Your task to perform on an android device: make emails show in primary in the gmail app Image 0: 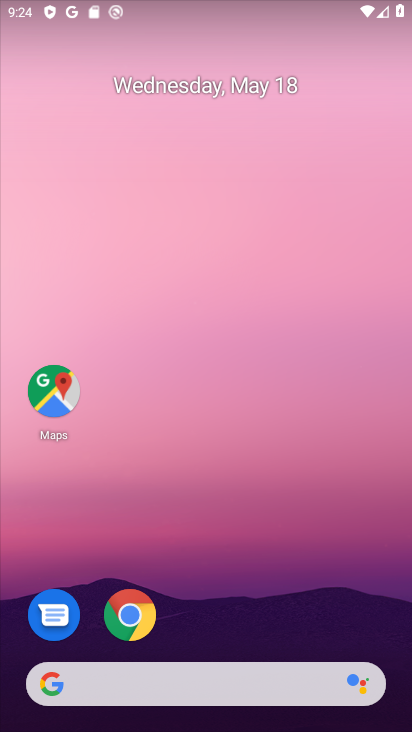
Step 0: drag from (351, 612) to (324, 113)
Your task to perform on an android device: make emails show in primary in the gmail app Image 1: 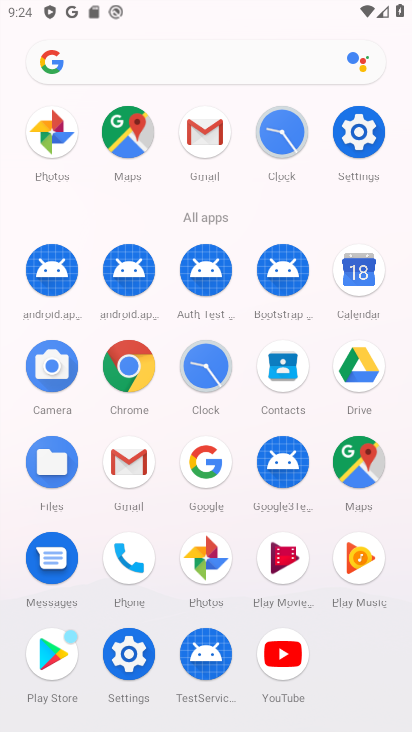
Step 1: click (141, 454)
Your task to perform on an android device: make emails show in primary in the gmail app Image 2: 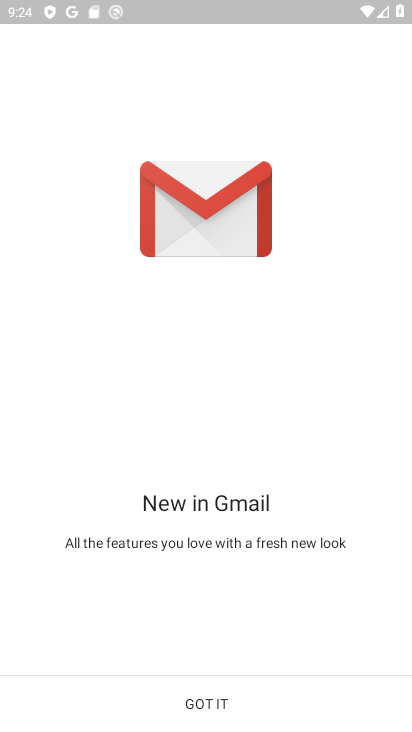
Step 2: click (256, 684)
Your task to perform on an android device: make emails show in primary in the gmail app Image 3: 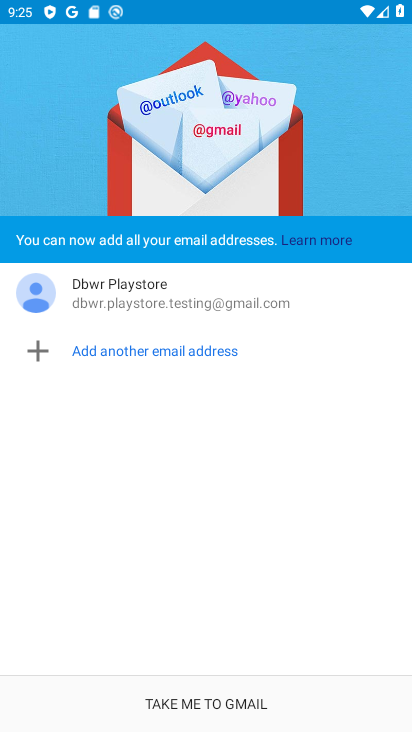
Step 3: click (207, 708)
Your task to perform on an android device: make emails show in primary in the gmail app Image 4: 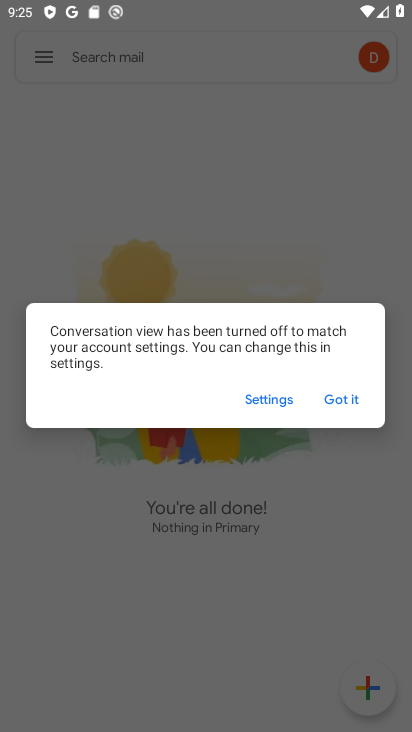
Step 4: click (342, 400)
Your task to perform on an android device: make emails show in primary in the gmail app Image 5: 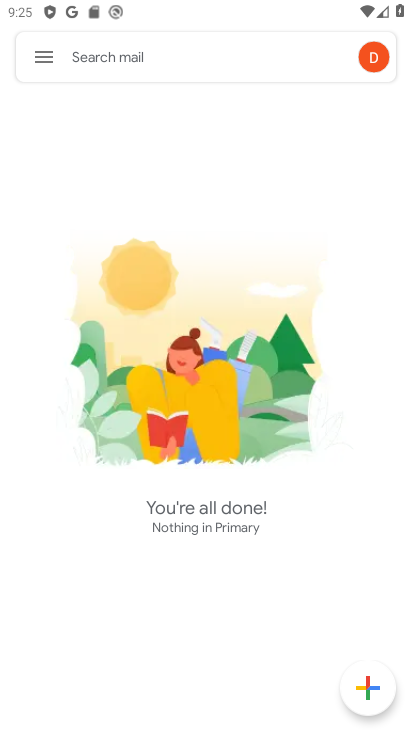
Step 5: click (42, 65)
Your task to perform on an android device: make emails show in primary in the gmail app Image 6: 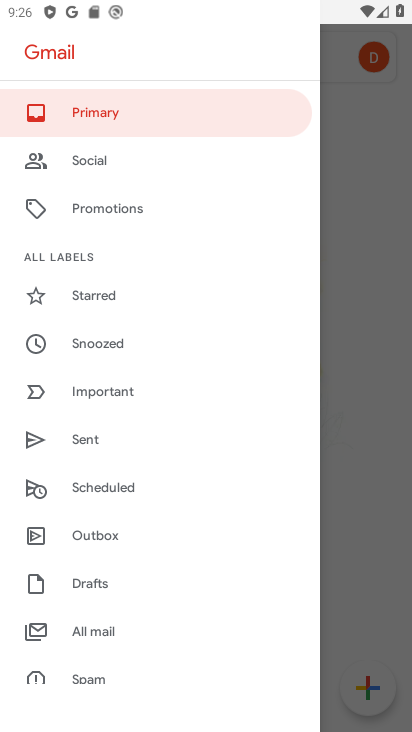
Step 6: drag from (179, 585) to (162, 266)
Your task to perform on an android device: make emails show in primary in the gmail app Image 7: 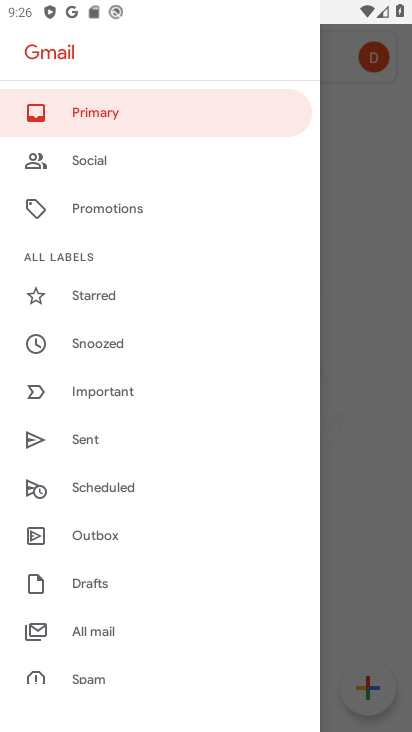
Step 7: drag from (138, 607) to (146, 125)
Your task to perform on an android device: make emails show in primary in the gmail app Image 8: 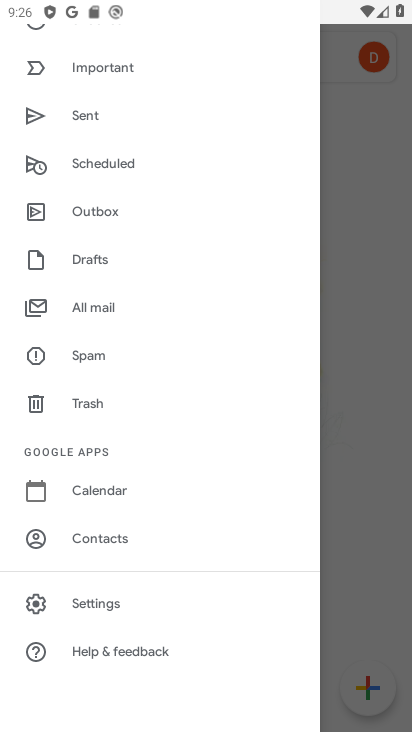
Step 8: click (101, 612)
Your task to perform on an android device: make emails show in primary in the gmail app Image 9: 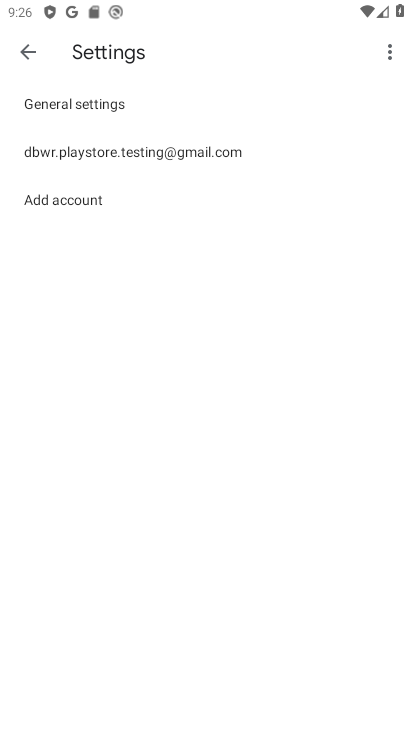
Step 9: click (118, 147)
Your task to perform on an android device: make emails show in primary in the gmail app Image 10: 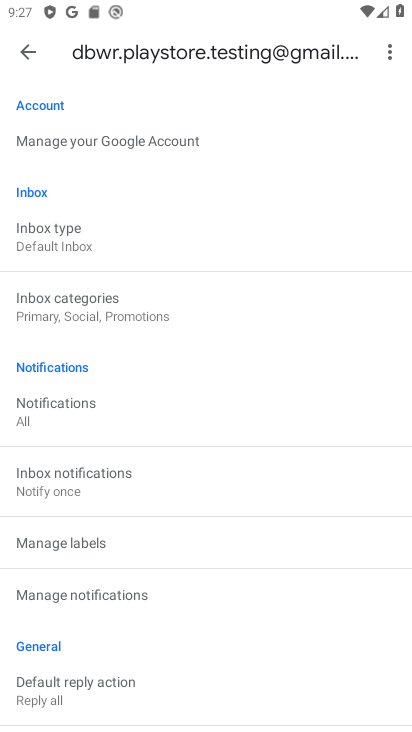
Step 10: click (132, 307)
Your task to perform on an android device: make emails show in primary in the gmail app Image 11: 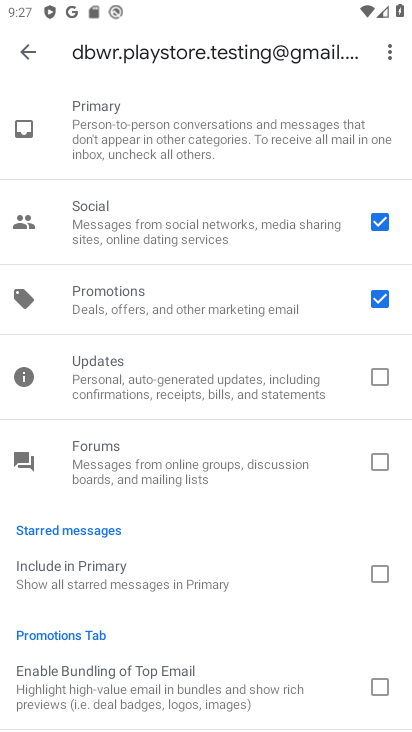
Step 11: click (380, 298)
Your task to perform on an android device: make emails show in primary in the gmail app Image 12: 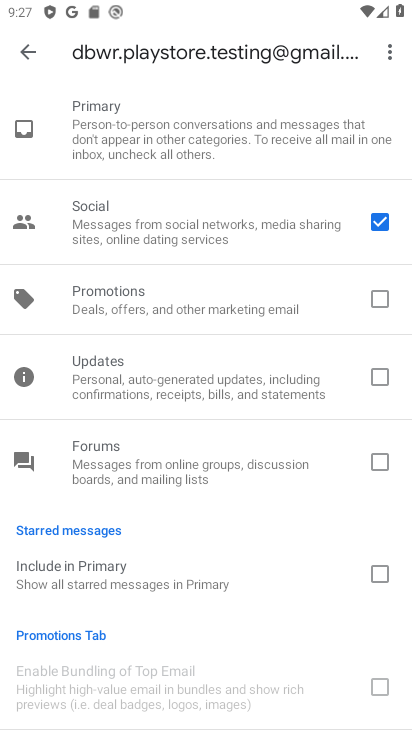
Step 12: click (387, 221)
Your task to perform on an android device: make emails show in primary in the gmail app Image 13: 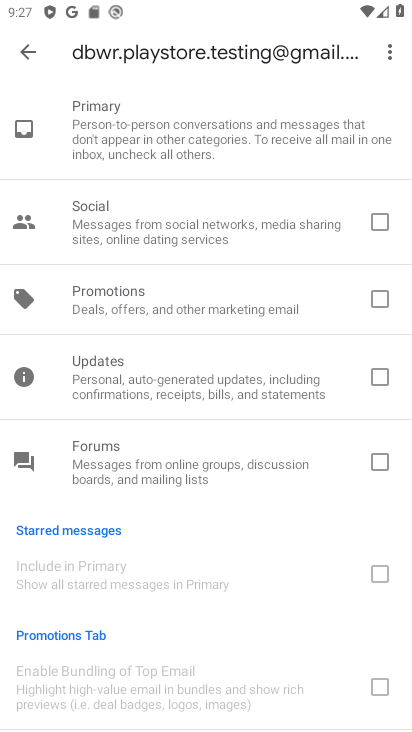
Step 13: task complete